Your task to perform on an android device: Open Wikipedia Image 0: 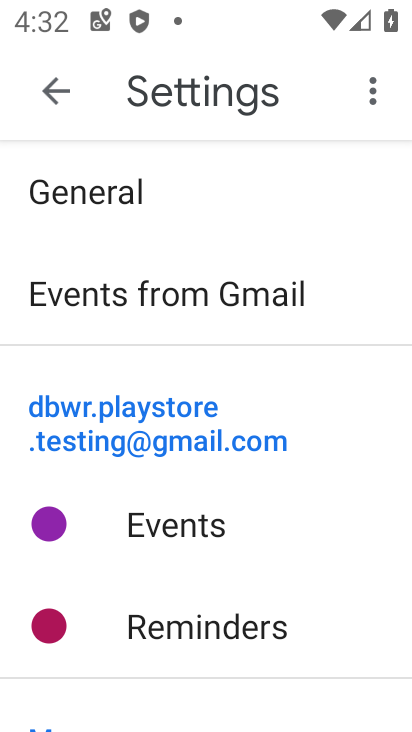
Step 0: press back button
Your task to perform on an android device: Open Wikipedia Image 1: 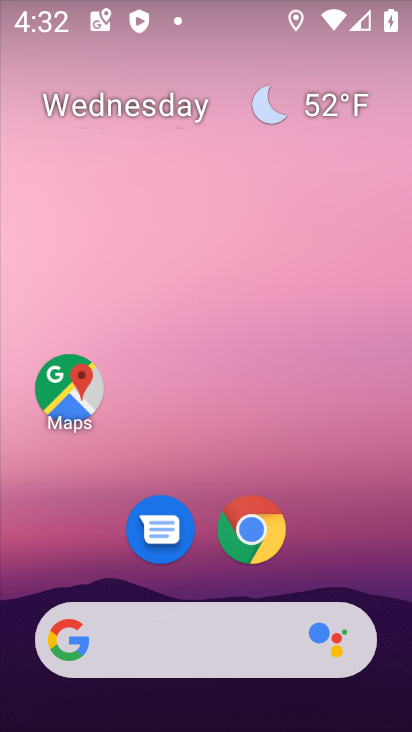
Step 1: click (256, 529)
Your task to perform on an android device: Open Wikipedia Image 2: 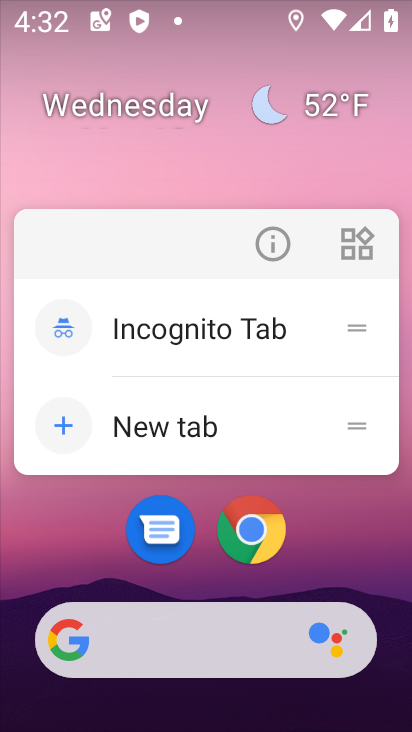
Step 2: click (250, 528)
Your task to perform on an android device: Open Wikipedia Image 3: 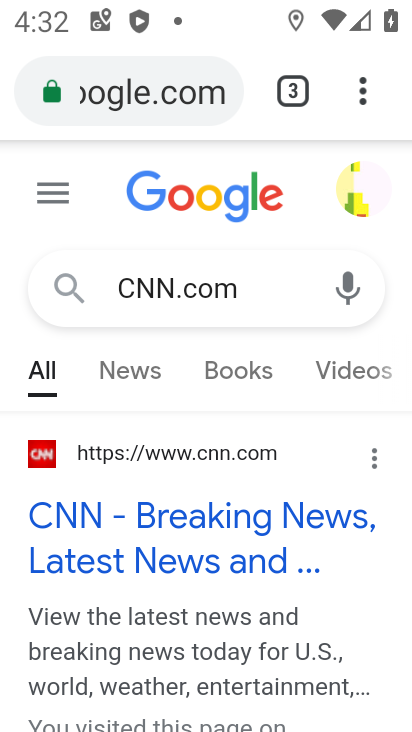
Step 3: click (166, 89)
Your task to perform on an android device: Open Wikipedia Image 4: 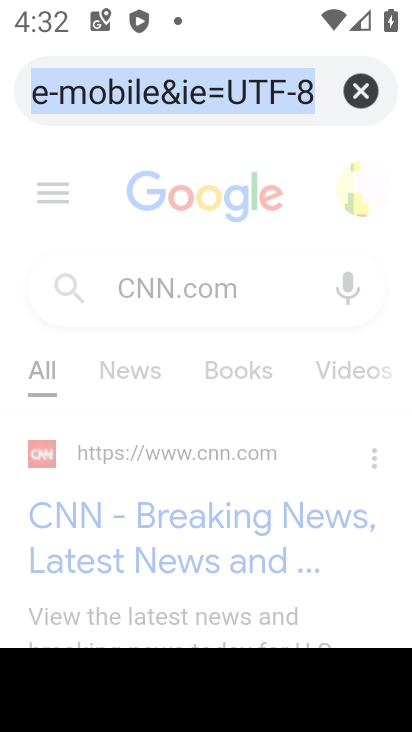
Step 4: click (360, 94)
Your task to perform on an android device: Open Wikipedia Image 5: 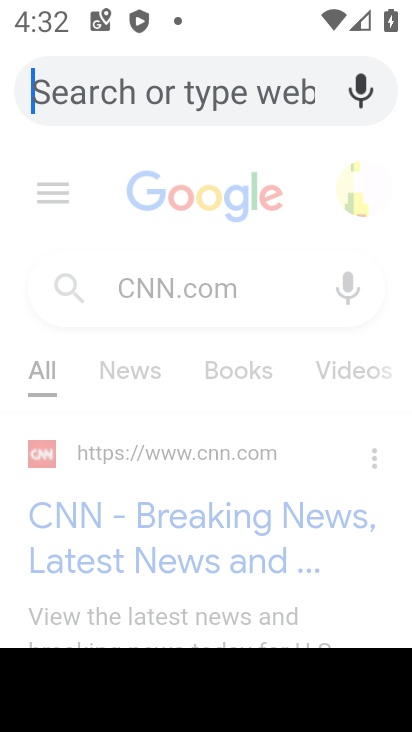
Step 5: click (230, 93)
Your task to perform on an android device: Open Wikipedia Image 6: 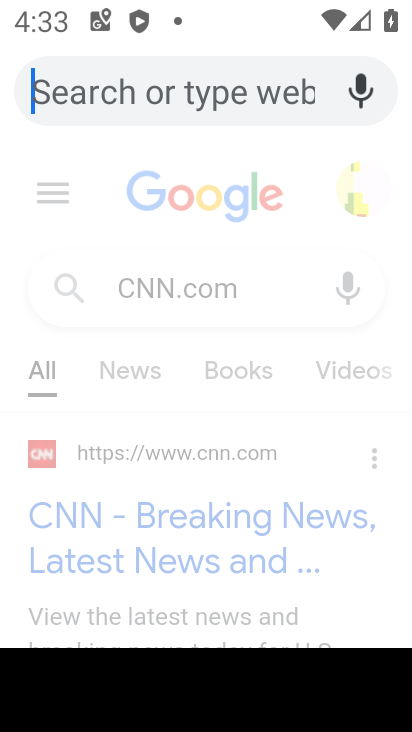
Step 6: type "Wikipedia"
Your task to perform on an android device: Open Wikipedia Image 7: 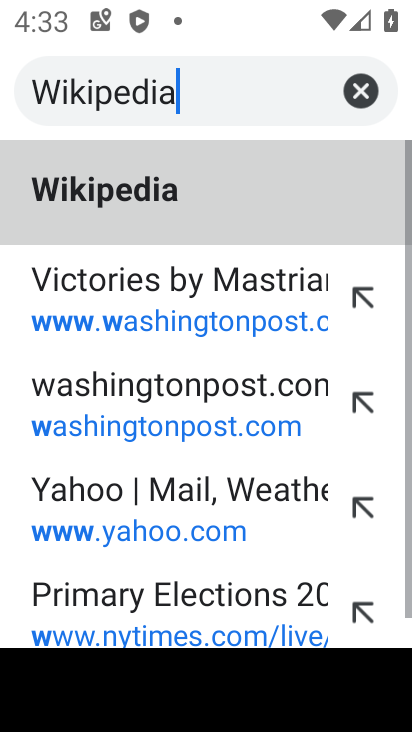
Step 7: type ""
Your task to perform on an android device: Open Wikipedia Image 8: 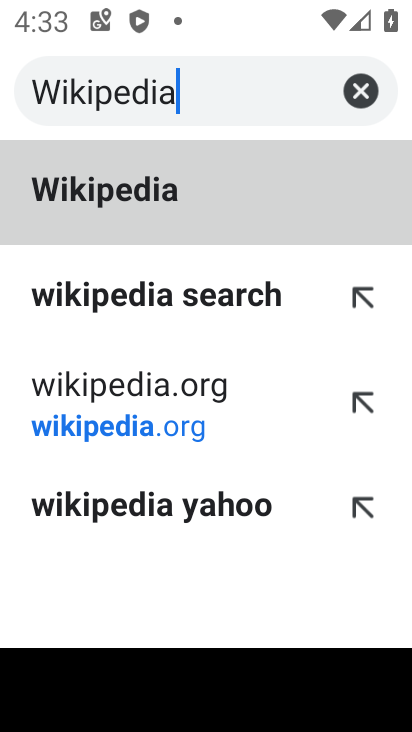
Step 8: click (106, 179)
Your task to perform on an android device: Open Wikipedia Image 9: 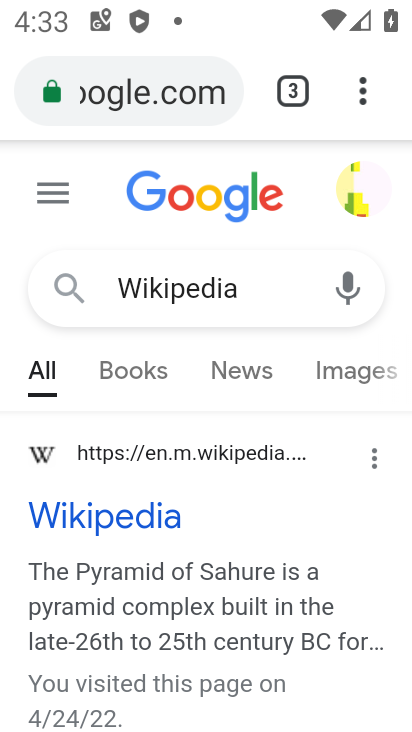
Step 9: click (100, 532)
Your task to perform on an android device: Open Wikipedia Image 10: 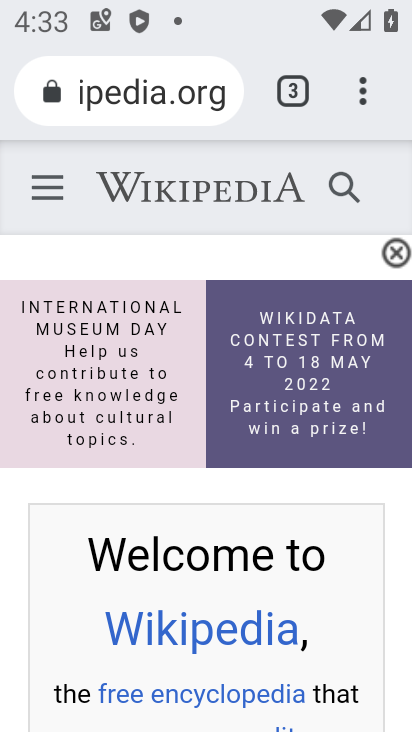
Step 10: task complete